Your task to perform on an android device: turn on sleep mode Image 0: 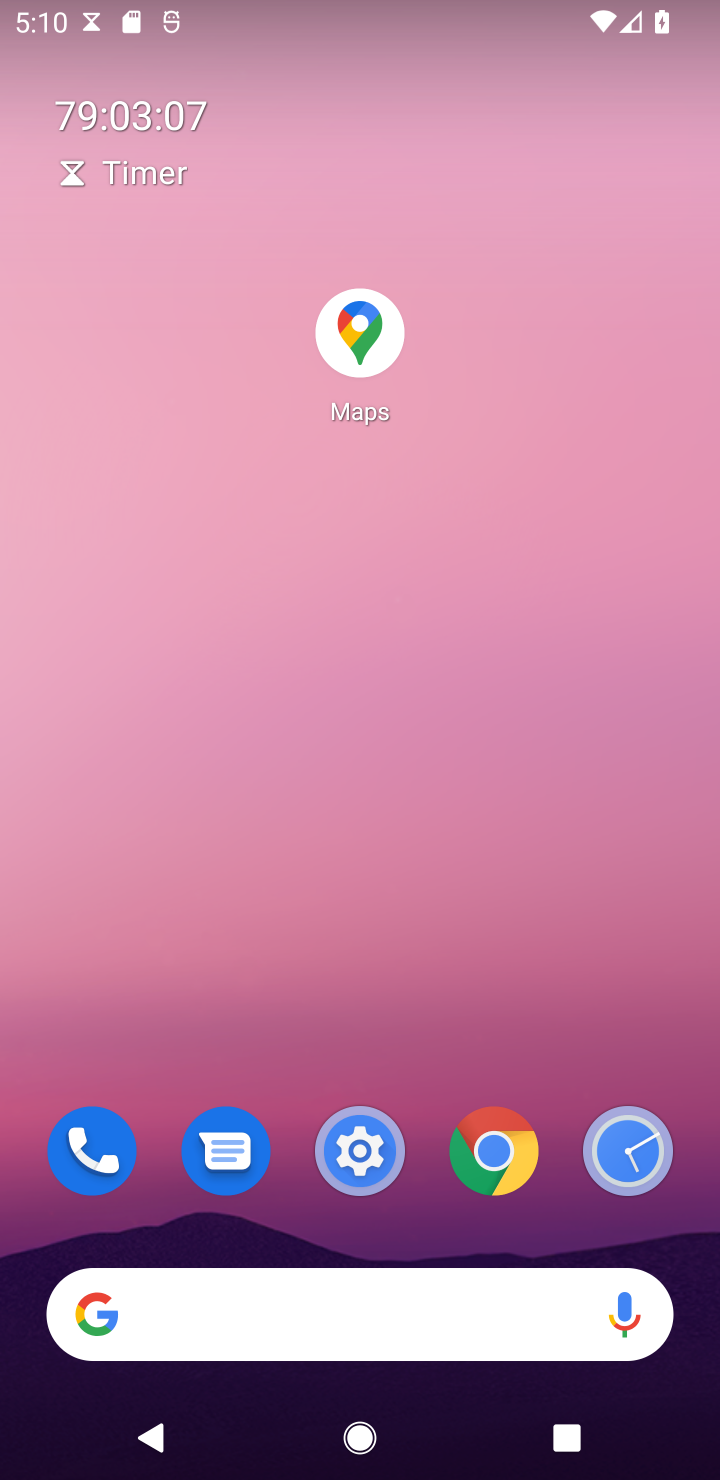
Step 0: drag from (322, 772) to (388, 372)
Your task to perform on an android device: turn on sleep mode Image 1: 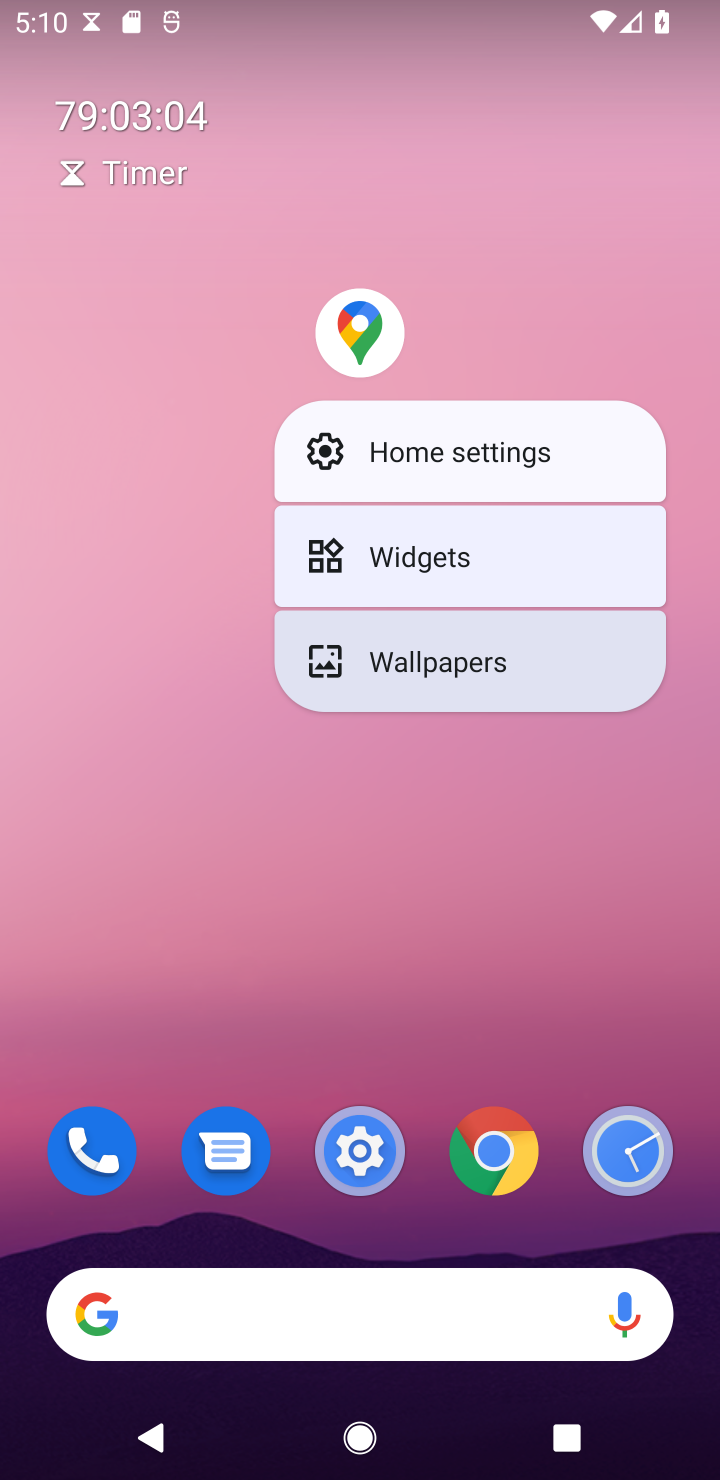
Step 1: click (222, 914)
Your task to perform on an android device: turn on sleep mode Image 2: 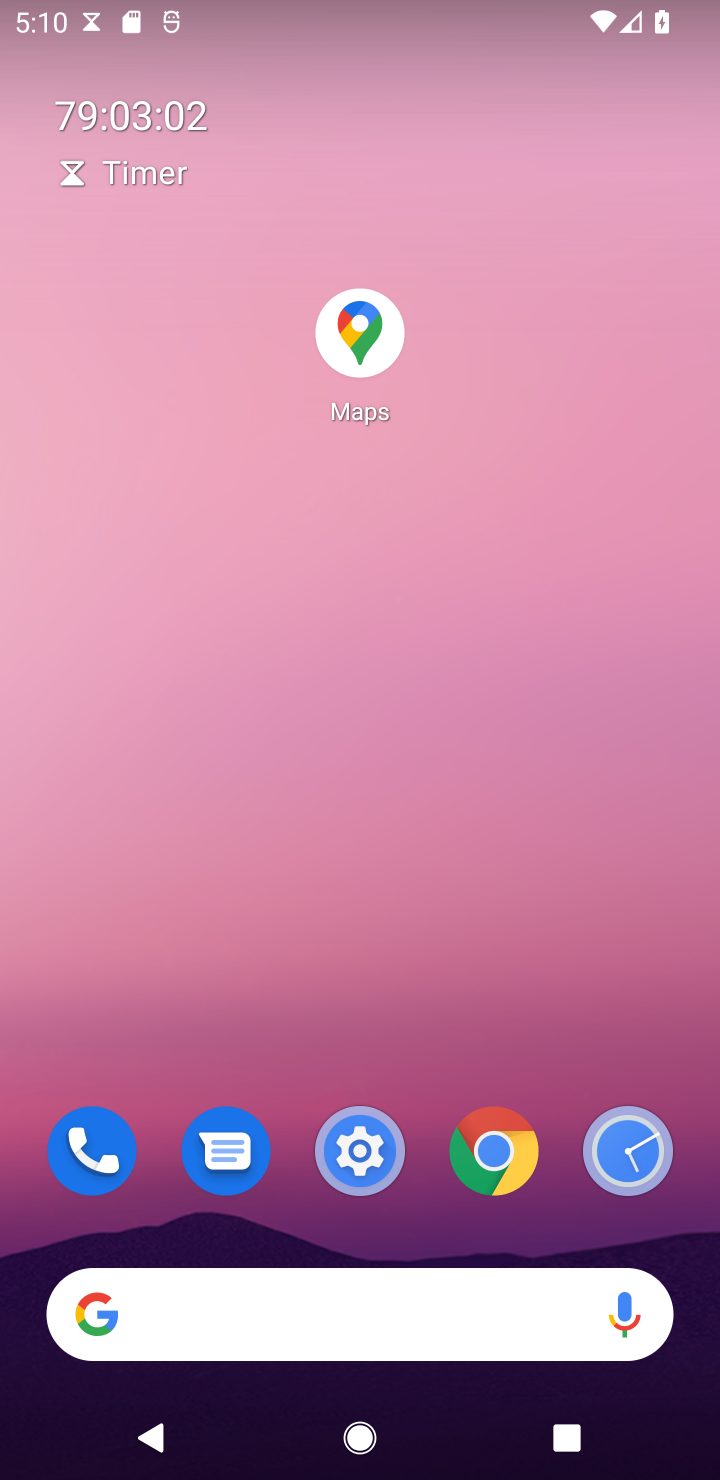
Step 2: drag from (373, 1195) to (366, 122)
Your task to perform on an android device: turn on sleep mode Image 3: 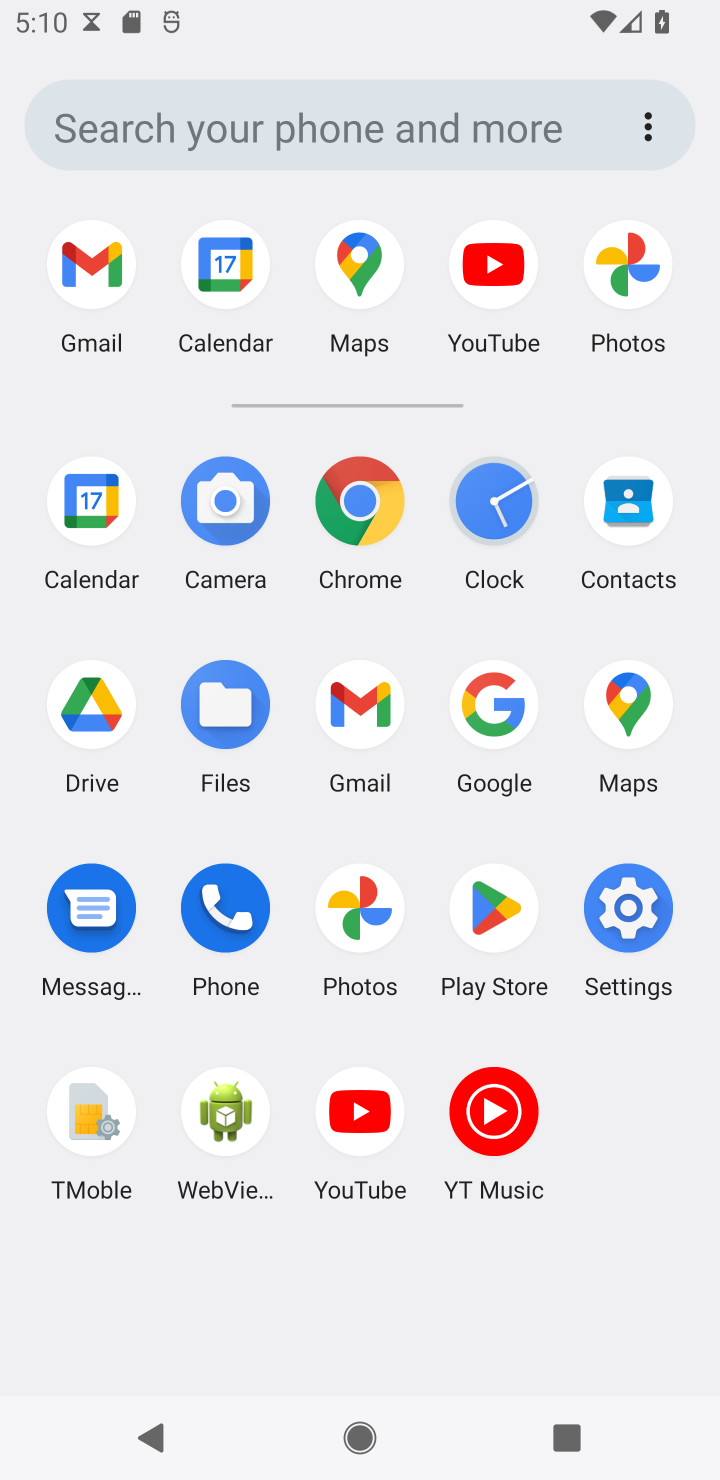
Step 3: click (591, 915)
Your task to perform on an android device: turn on sleep mode Image 4: 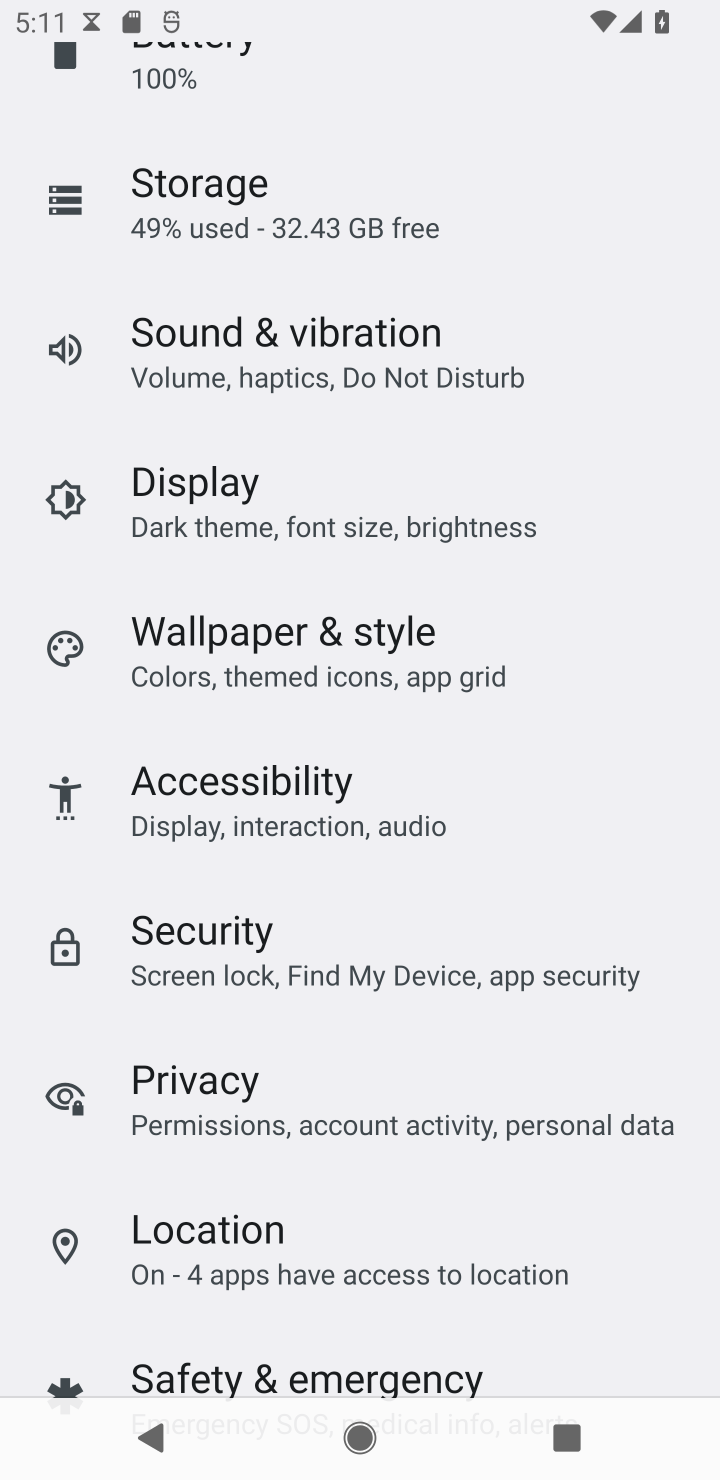
Step 4: task complete